Your task to perform on an android device: Open the web browser Image 0: 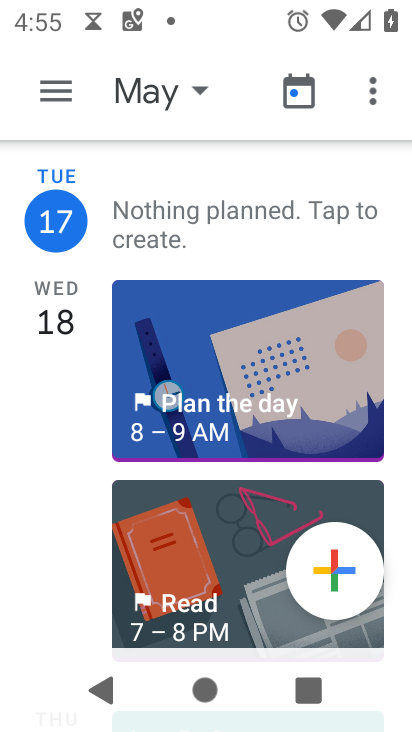
Step 0: press home button
Your task to perform on an android device: Open the web browser Image 1: 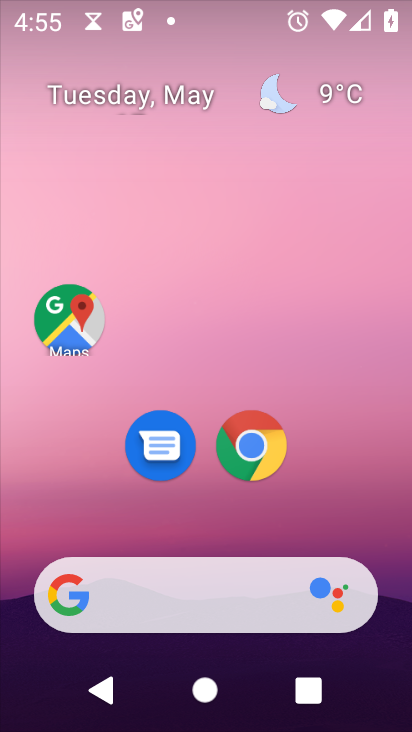
Step 1: drag from (230, 582) to (227, 52)
Your task to perform on an android device: Open the web browser Image 2: 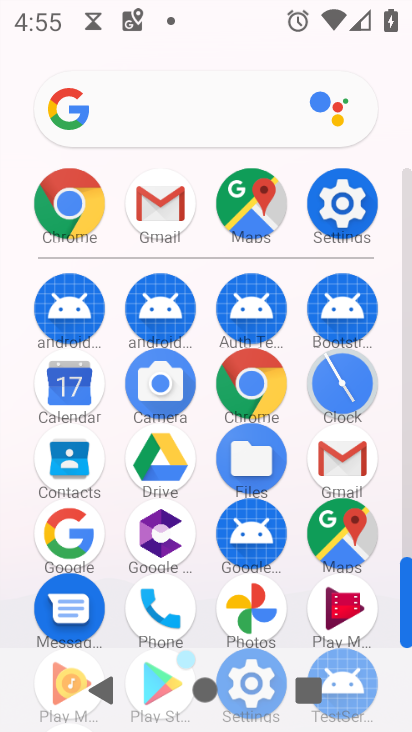
Step 2: click (247, 386)
Your task to perform on an android device: Open the web browser Image 3: 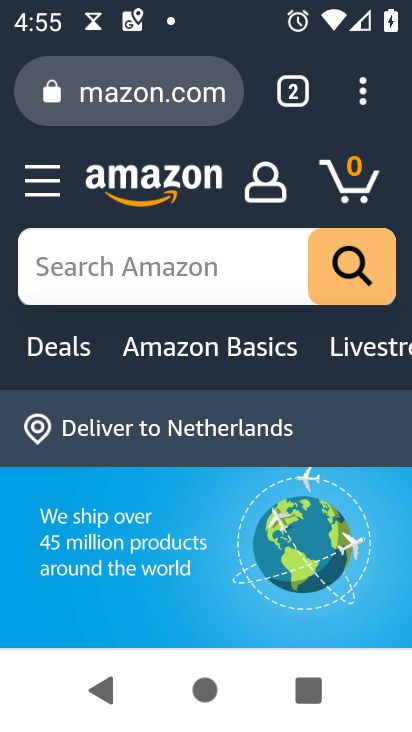
Step 3: task complete